Your task to perform on an android device: Go to Reddit.com Image 0: 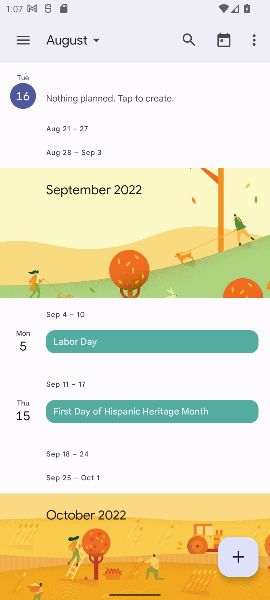
Step 0: task complete